Your task to perform on an android device: search for starred emails in the gmail app Image 0: 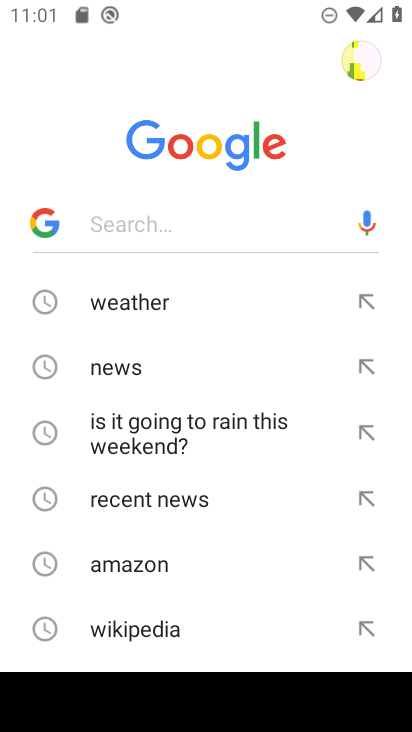
Step 0: press home button
Your task to perform on an android device: search for starred emails in the gmail app Image 1: 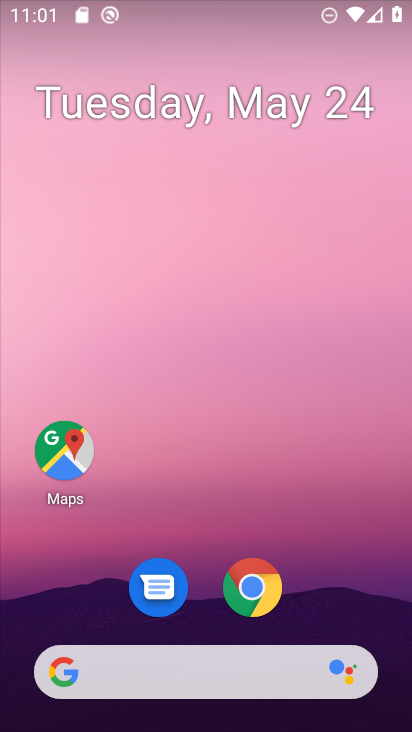
Step 1: drag from (405, 479) to (295, 64)
Your task to perform on an android device: search for starred emails in the gmail app Image 2: 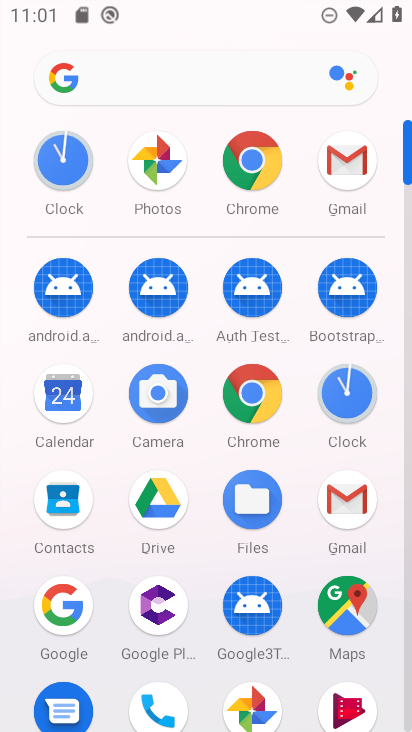
Step 2: click (345, 493)
Your task to perform on an android device: search for starred emails in the gmail app Image 3: 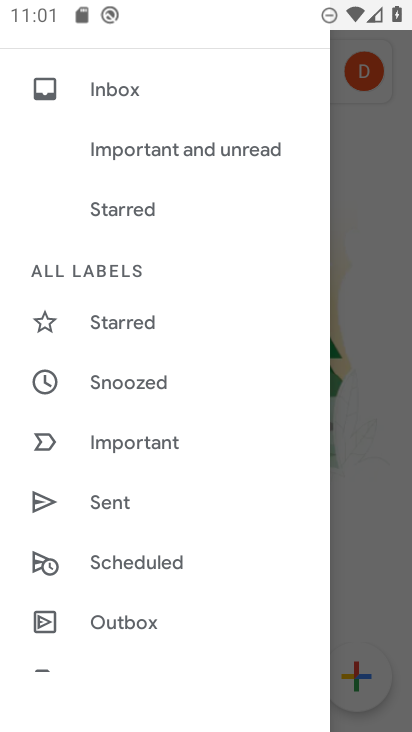
Step 3: click (104, 315)
Your task to perform on an android device: search for starred emails in the gmail app Image 4: 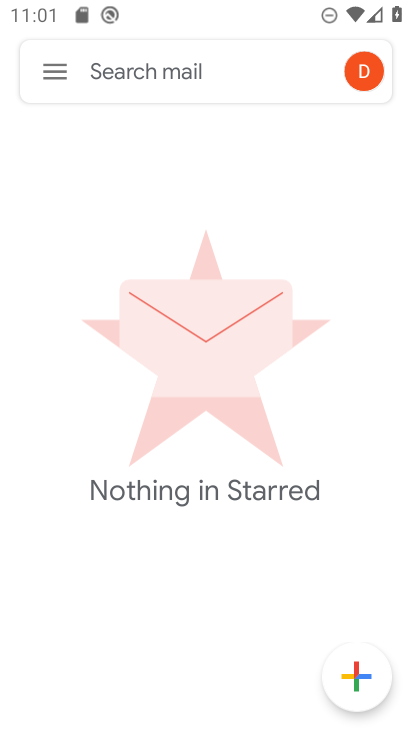
Step 4: task complete